Your task to perform on an android device: Go to privacy settings Image 0: 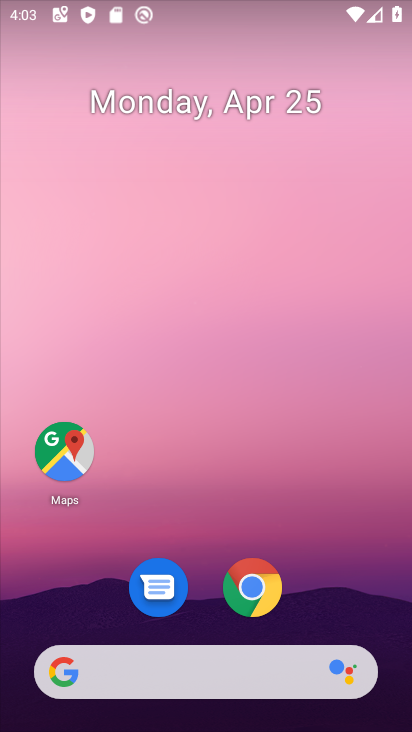
Step 0: drag from (366, 621) to (383, 35)
Your task to perform on an android device: Go to privacy settings Image 1: 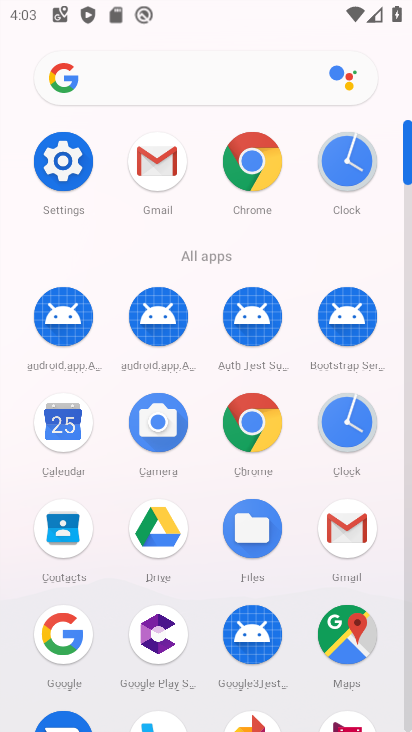
Step 1: click (69, 172)
Your task to perform on an android device: Go to privacy settings Image 2: 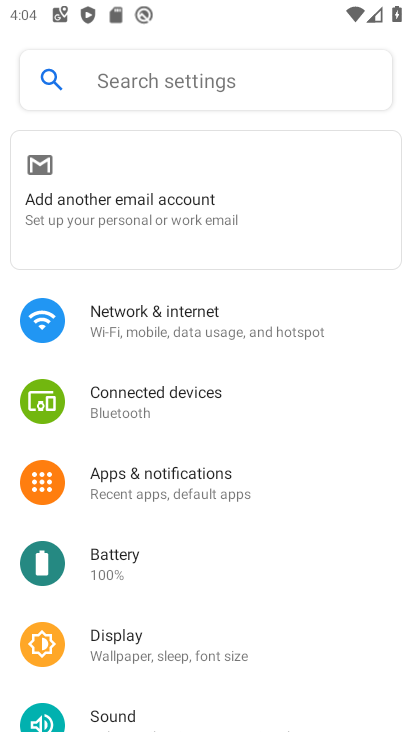
Step 2: drag from (278, 601) to (266, 364)
Your task to perform on an android device: Go to privacy settings Image 3: 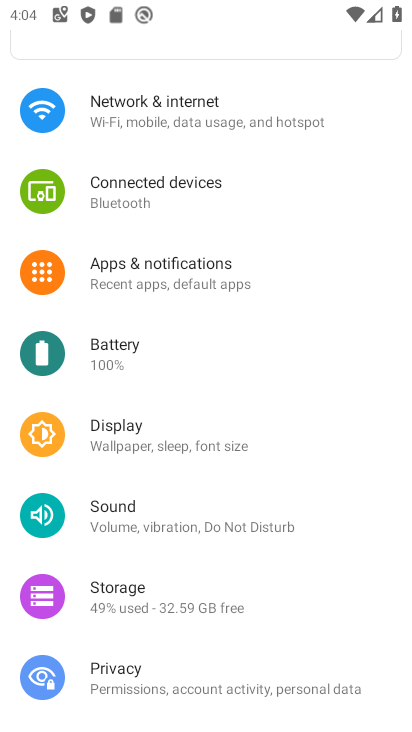
Step 3: click (89, 667)
Your task to perform on an android device: Go to privacy settings Image 4: 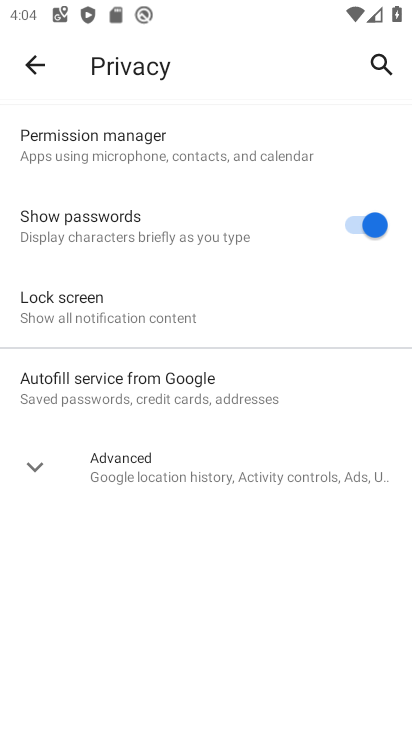
Step 4: task complete